Your task to perform on an android device: Open Google Image 0: 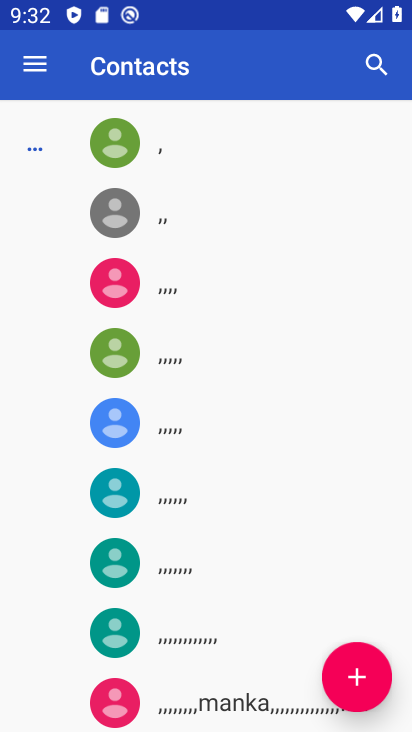
Step 0: press home button
Your task to perform on an android device: Open Google Image 1: 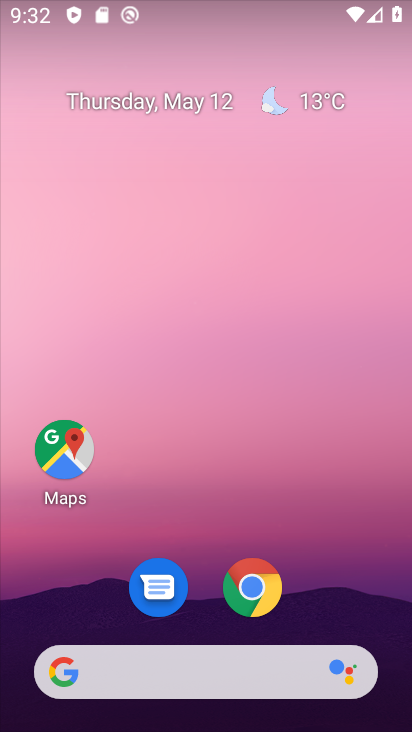
Step 1: drag from (372, 570) to (311, 12)
Your task to perform on an android device: Open Google Image 2: 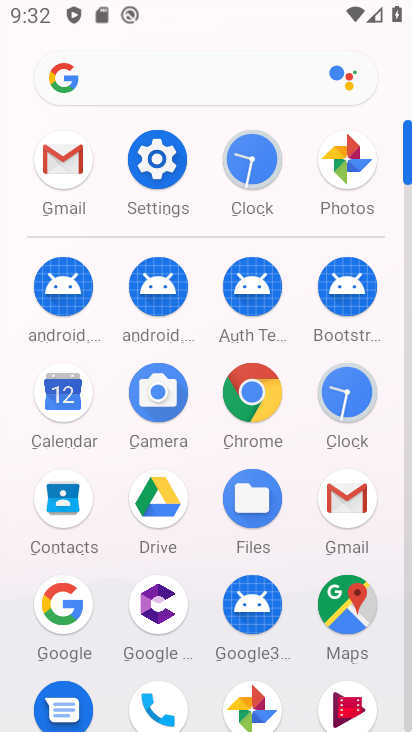
Step 2: click (66, 601)
Your task to perform on an android device: Open Google Image 3: 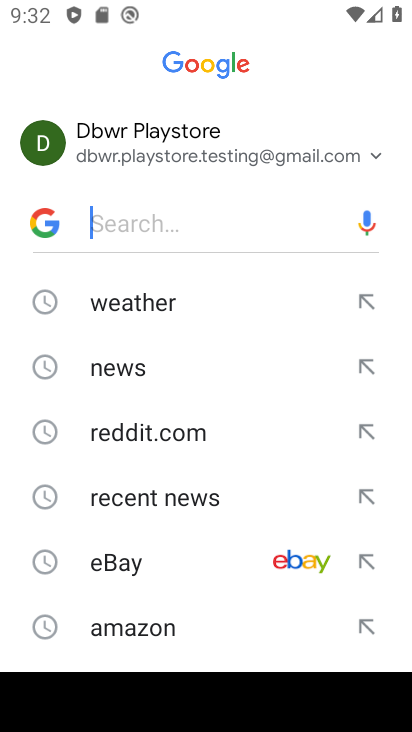
Step 3: task complete